Your task to perform on an android device: change text size in settings app Image 0: 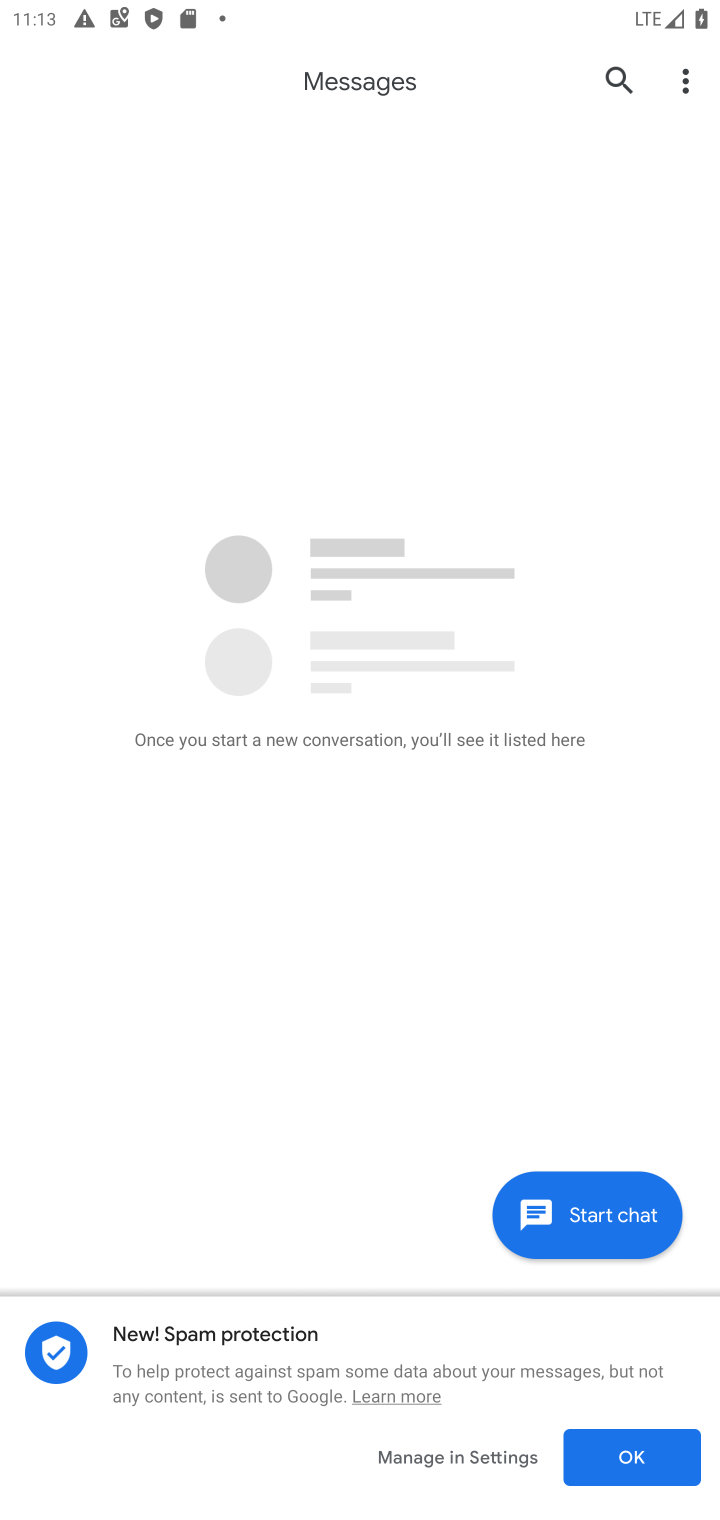
Step 0: press back button
Your task to perform on an android device: change text size in settings app Image 1: 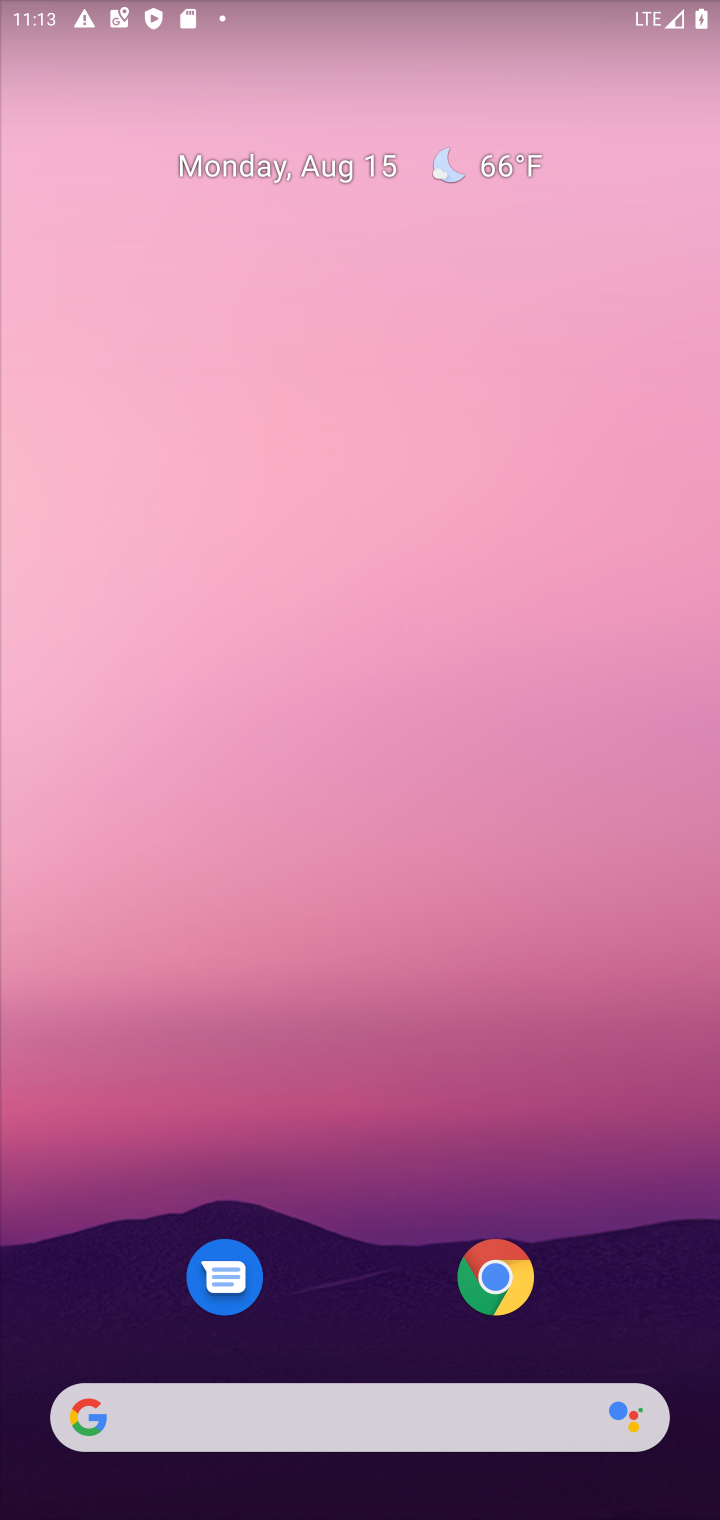
Step 1: drag from (344, 1408) to (554, 331)
Your task to perform on an android device: change text size in settings app Image 2: 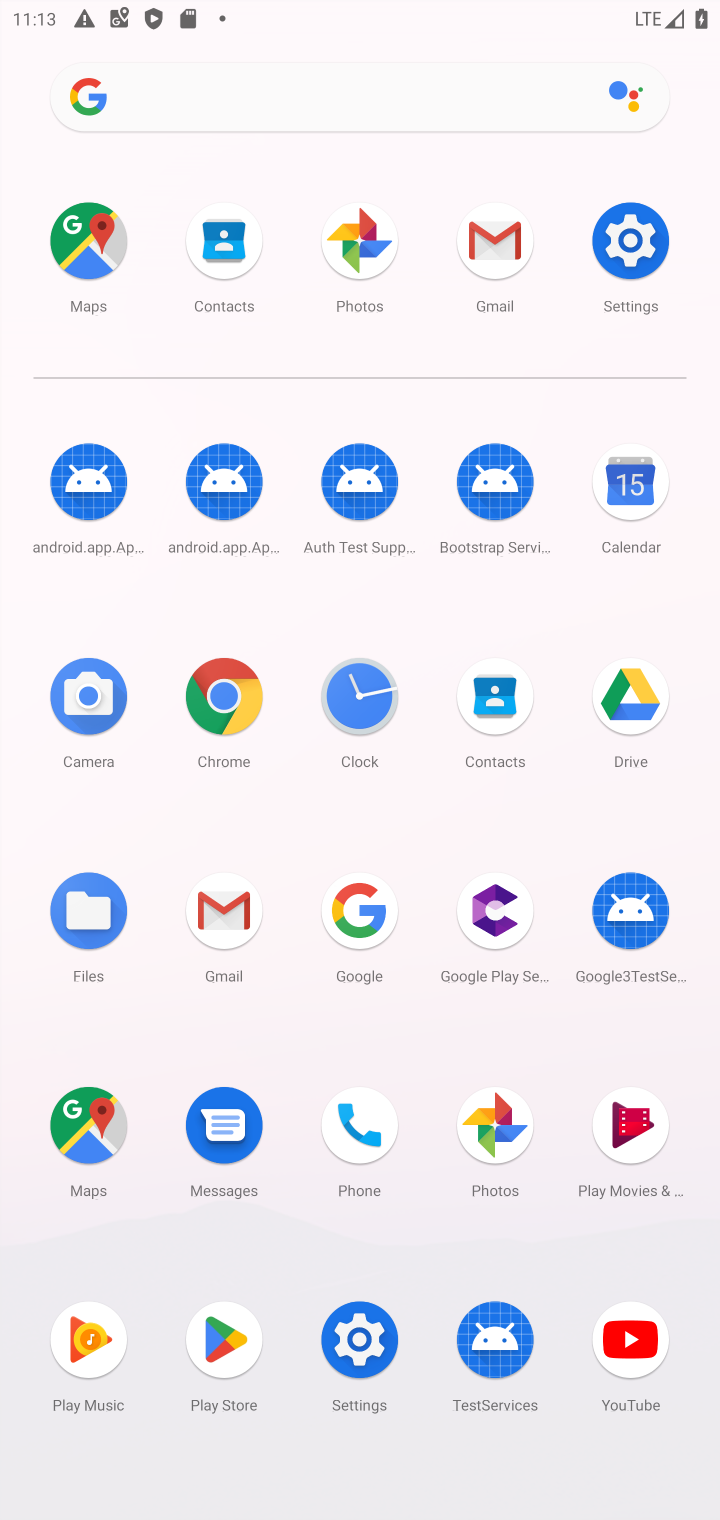
Step 2: click (629, 281)
Your task to perform on an android device: change text size in settings app Image 3: 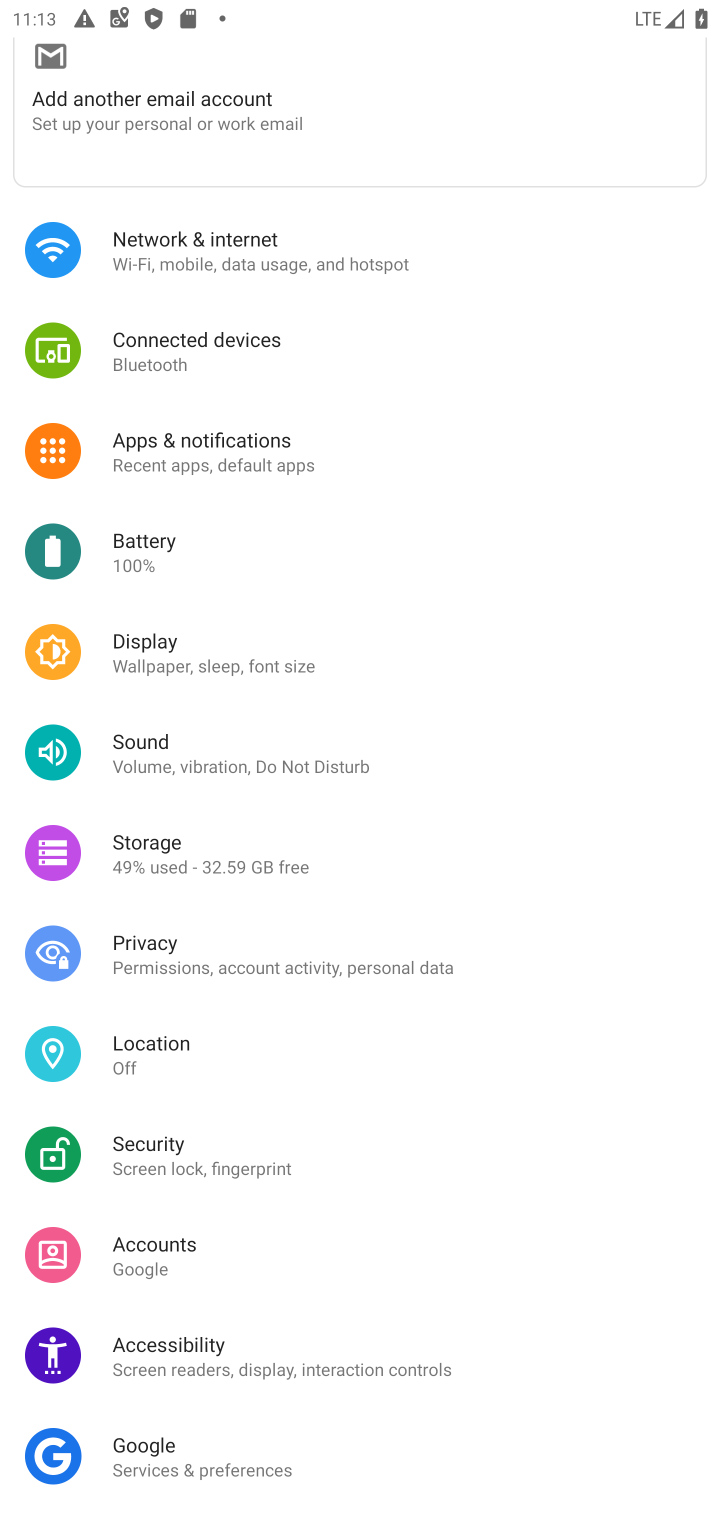
Step 3: click (181, 649)
Your task to perform on an android device: change text size in settings app Image 4: 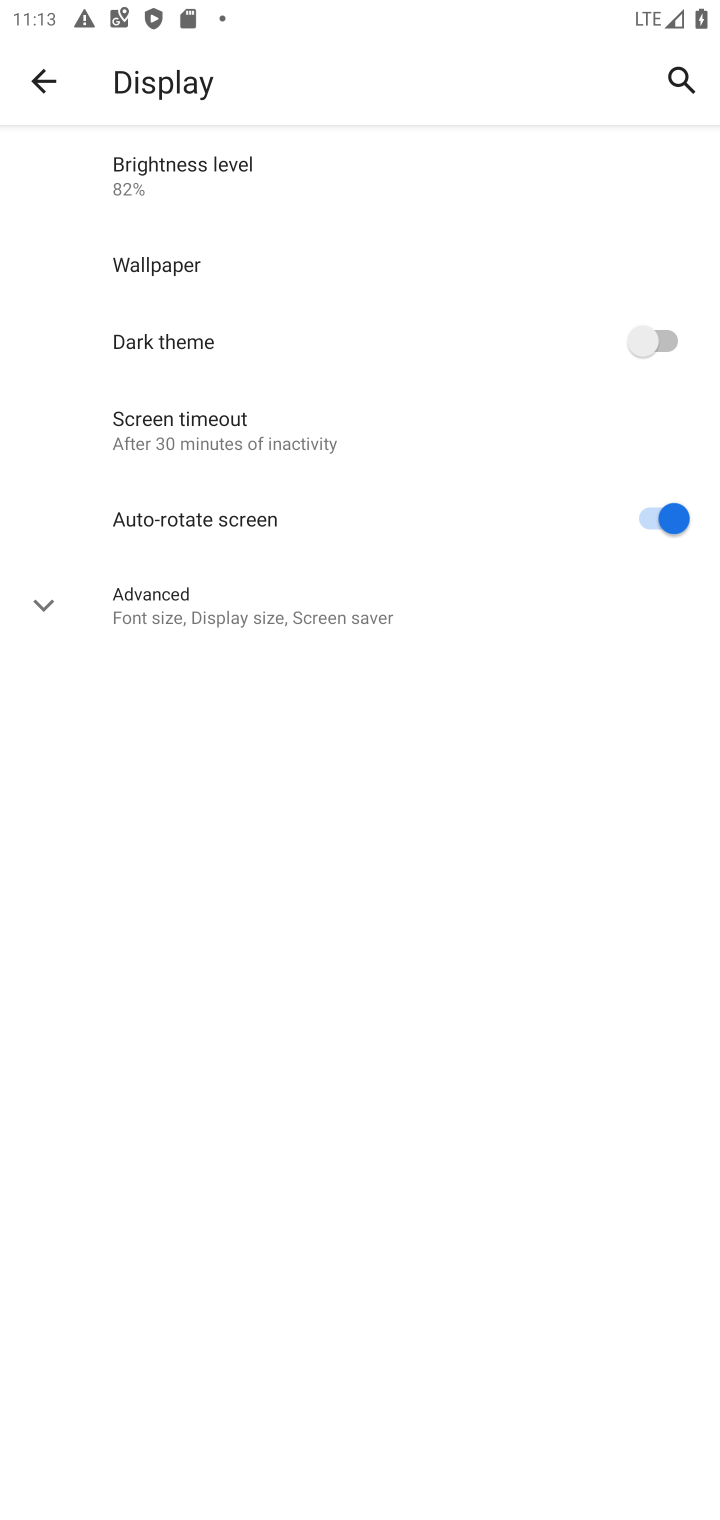
Step 4: click (223, 609)
Your task to perform on an android device: change text size in settings app Image 5: 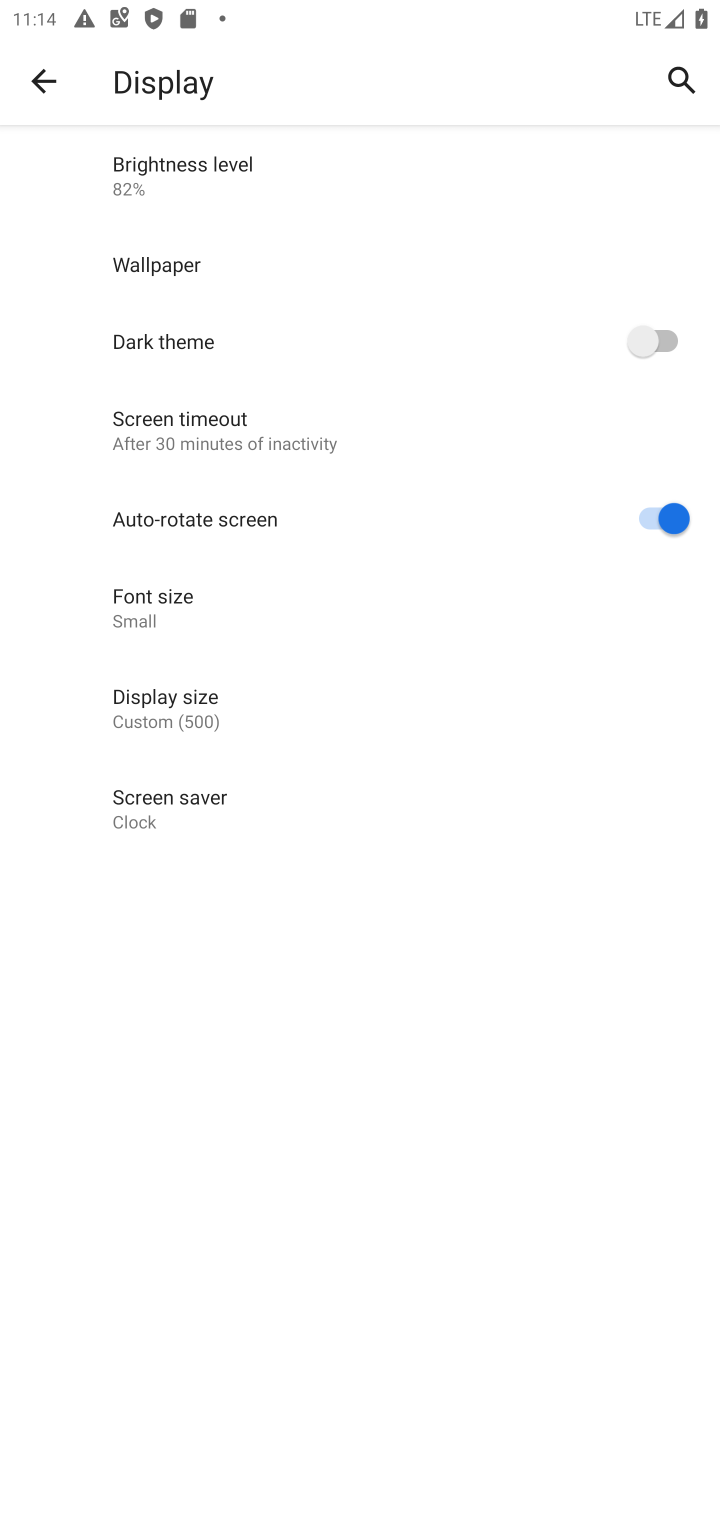
Step 5: click (192, 626)
Your task to perform on an android device: change text size in settings app Image 6: 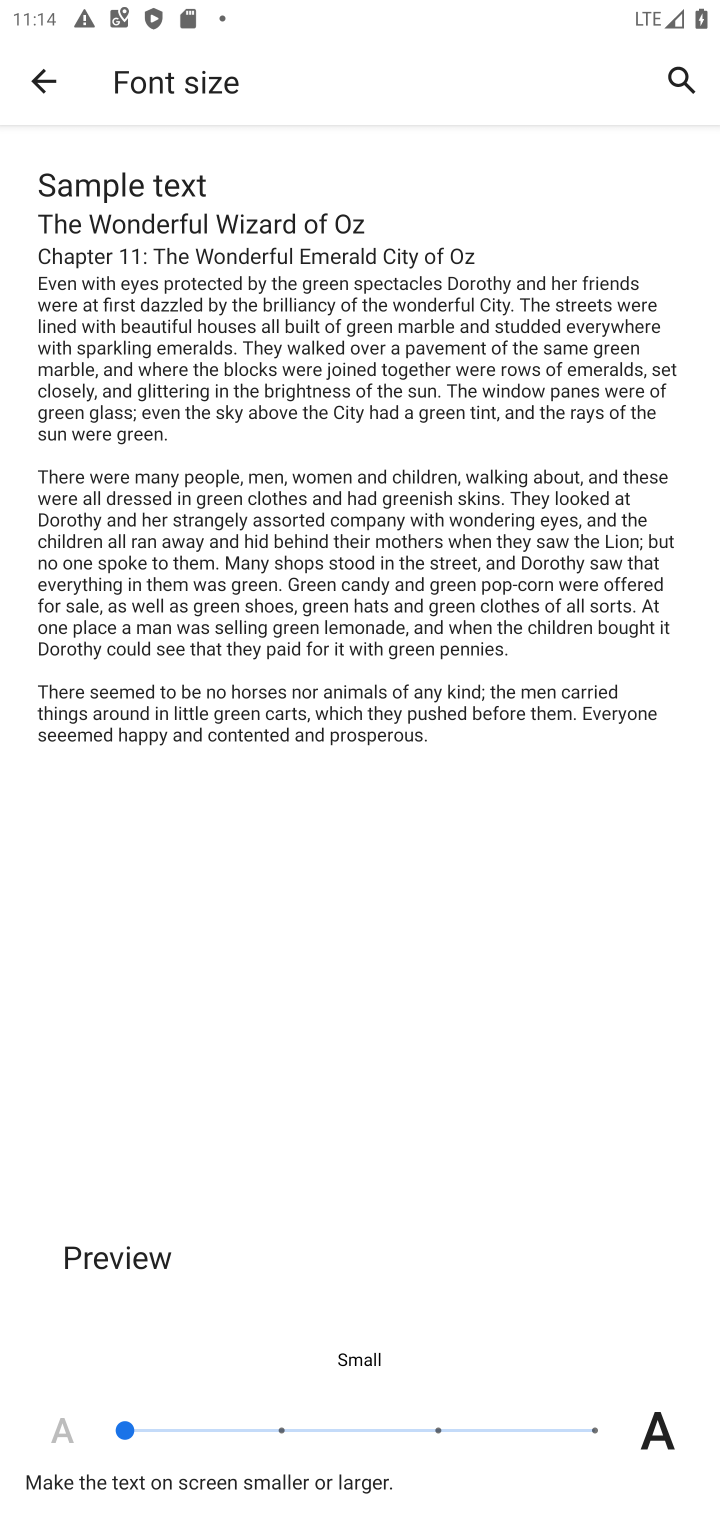
Step 6: click (289, 1430)
Your task to perform on an android device: change text size in settings app Image 7: 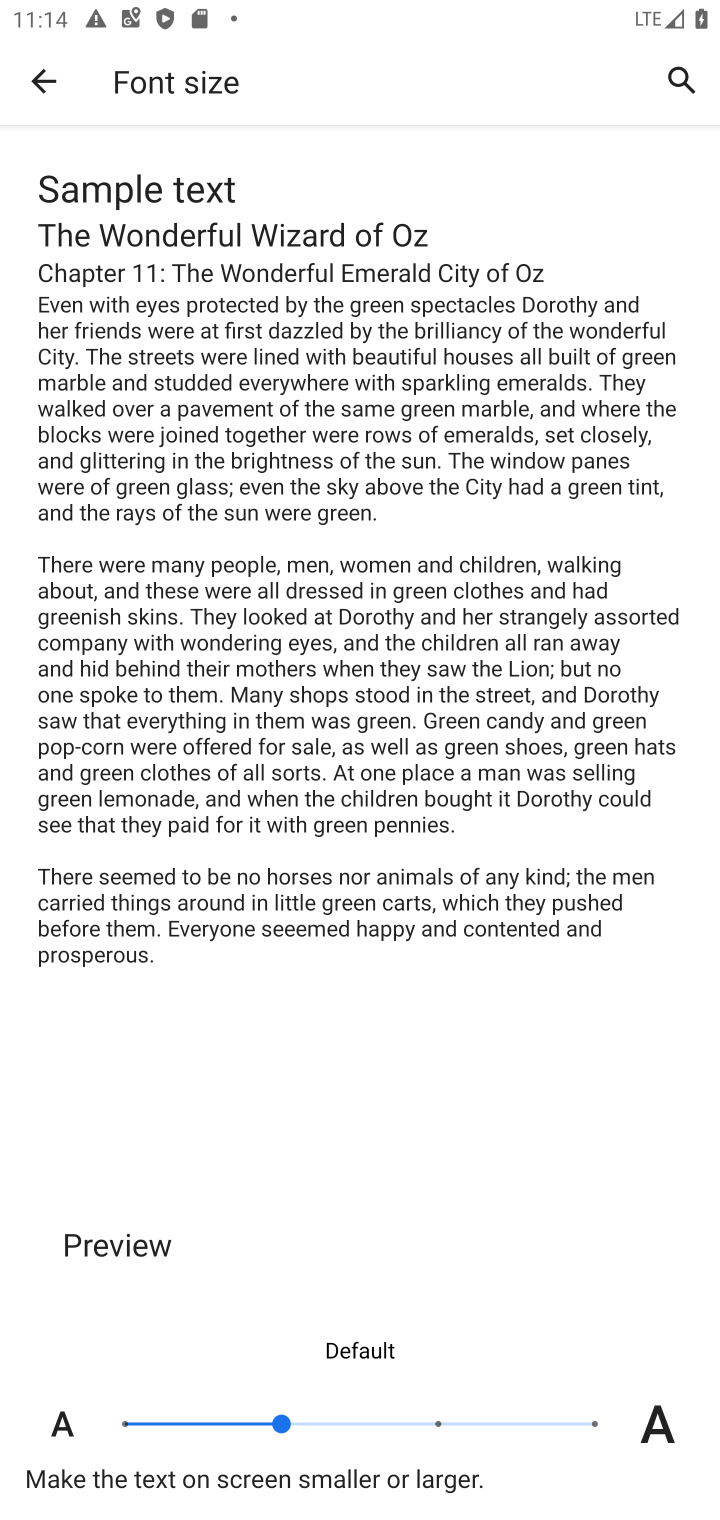
Step 7: task complete